Your task to perform on an android device: Open battery settings Image 0: 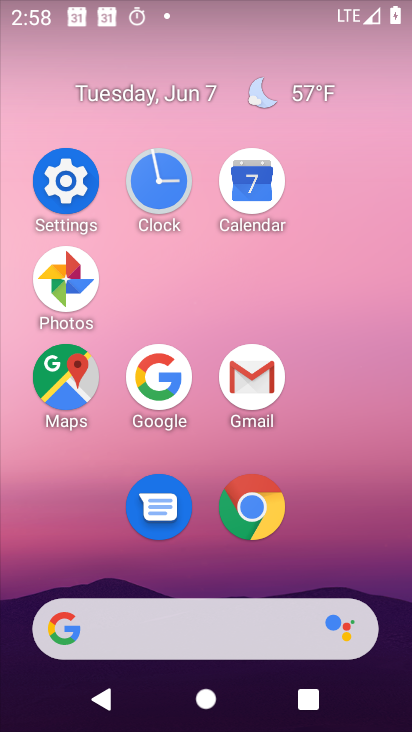
Step 0: click (73, 191)
Your task to perform on an android device: Open battery settings Image 1: 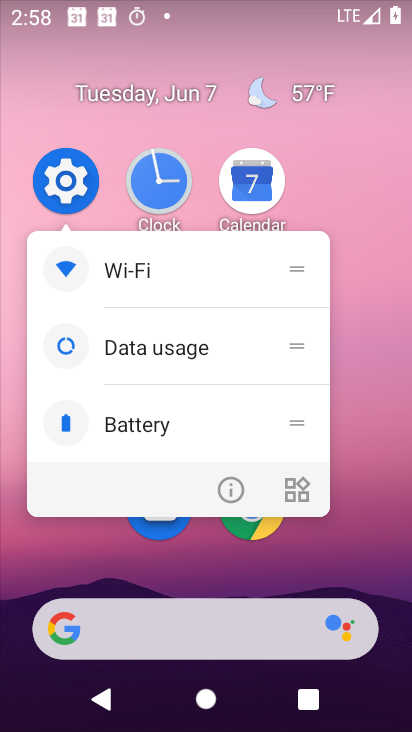
Step 1: click (46, 195)
Your task to perform on an android device: Open battery settings Image 2: 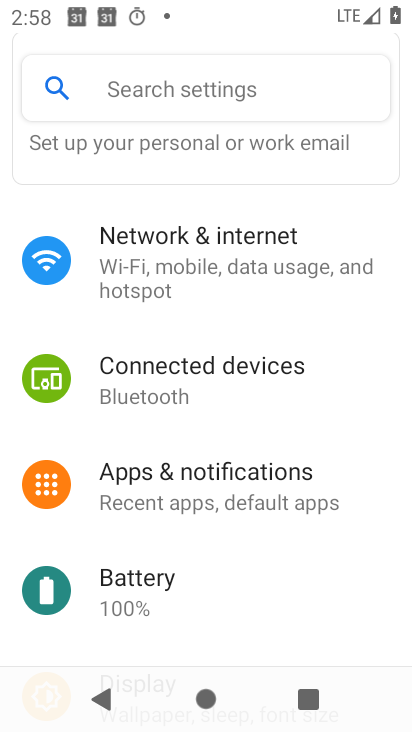
Step 2: drag from (299, 550) to (317, 221)
Your task to perform on an android device: Open battery settings Image 3: 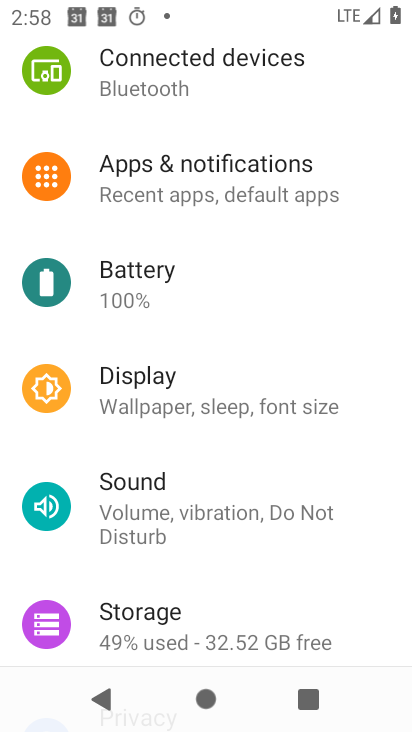
Step 3: click (214, 282)
Your task to perform on an android device: Open battery settings Image 4: 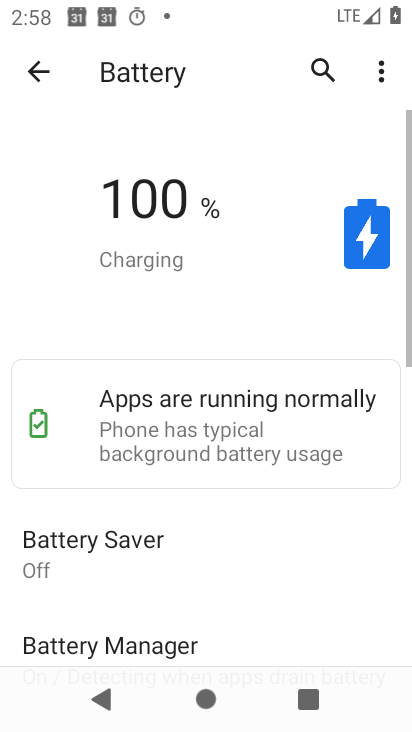
Step 4: task complete